Your task to perform on an android device: Search for sushi restaurants on Maps Image 0: 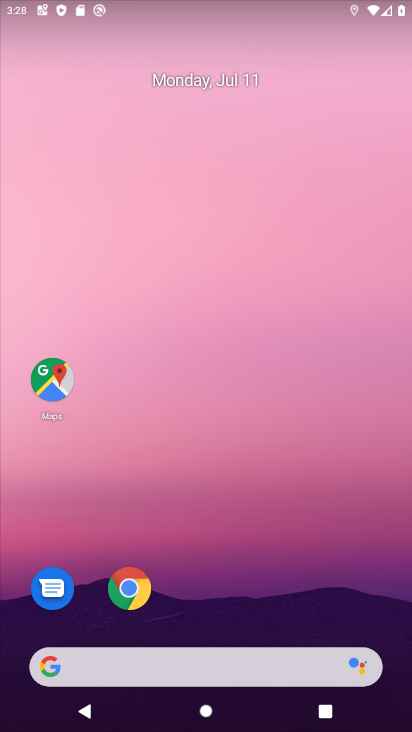
Step 0: click (53, 382)
Your task to perform on an android device: Search for sushi restaurants on Maps Image 1: 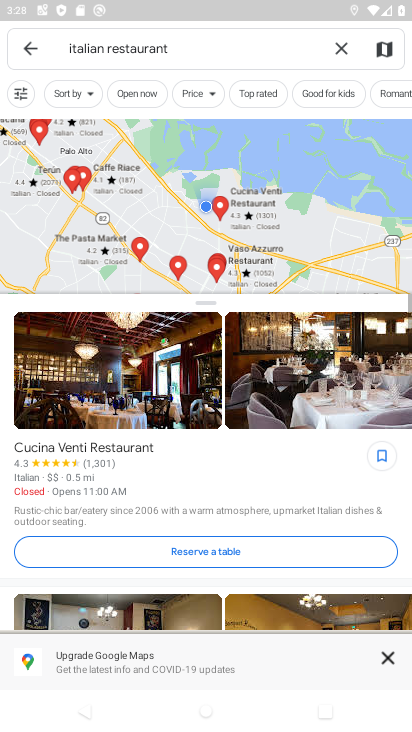
Step 1: click (342, 41)
Your task to perform on an android device: Search for sushi restaurants on Maps Image 2: 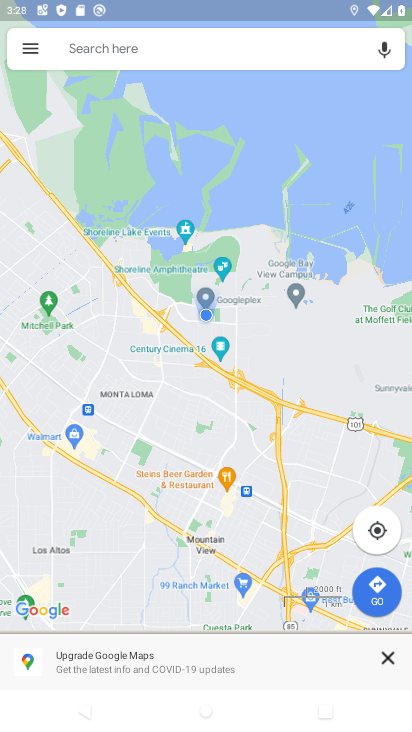
Step 2: click (168, 50)
Your task to perform on an android device: Search for sushi restaurants on Maps Image 3: 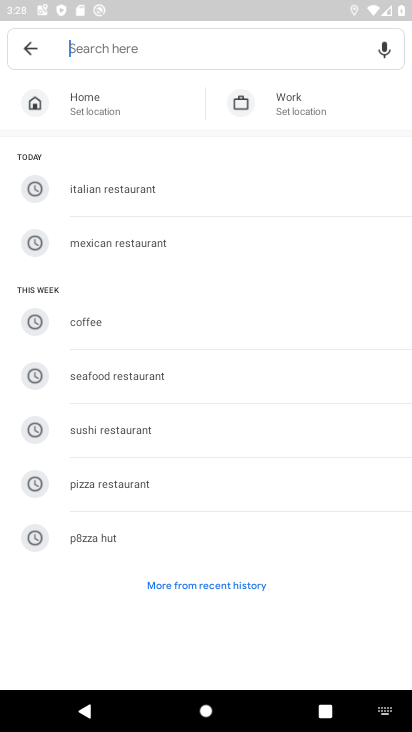
Step 3: click (111, 427)
Your task to perform on an android device: Search for sushi restaurants on Maps Image 4: 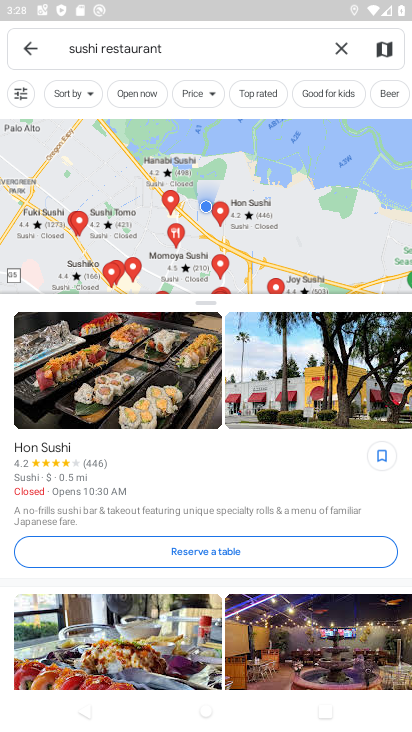
Step 4: task complete